Your task to perform on an android device: Open the map Image 0: 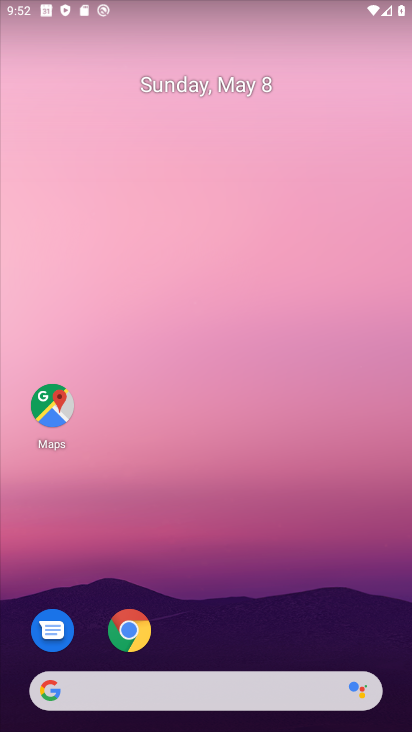
Step 0: drag from (220, 725) to (212, 264)
Your task to perform on an android device: Open the map Image 1: 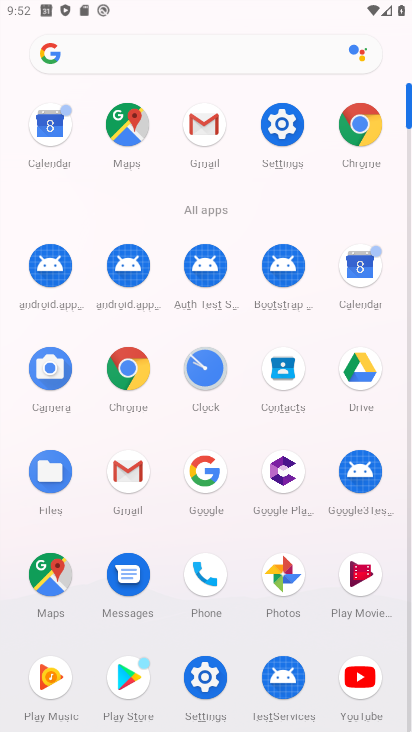
Step 1: click (44, 586)
Your task to perform on an android device: Open the map Image 2: 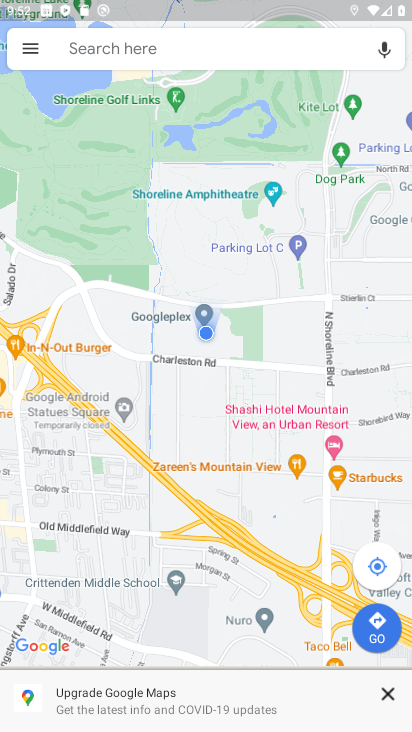
Step 2: task complete